Your task to perform on an android device: Go to Google maps Image 0: 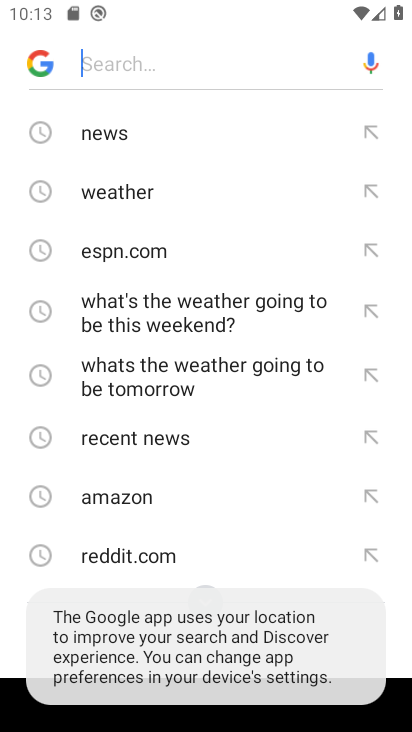
Step 0: press home button
Your task to perform on an android device: Go to Google maps Image 1: 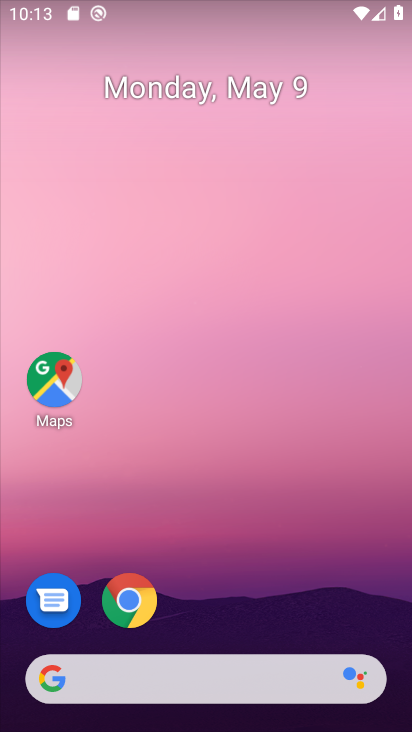
Step 1: drag from (365, 566) to (313, 120)
Your task to perform on an android device: Go to Google maps Image 2: 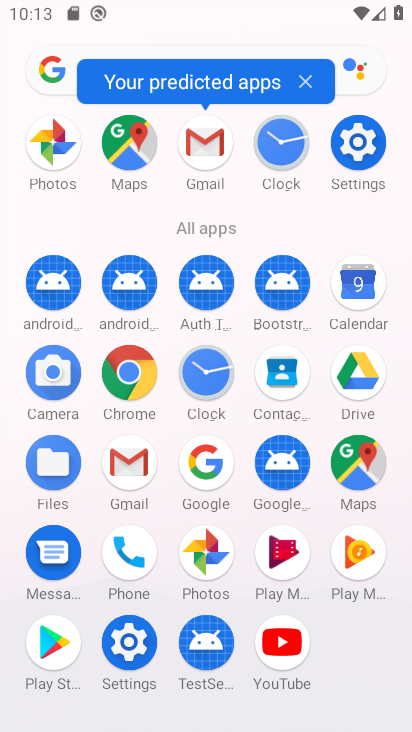
Step 2: click (348, 466)
Your task to perform on an android device: Go to Google maps Image 3: 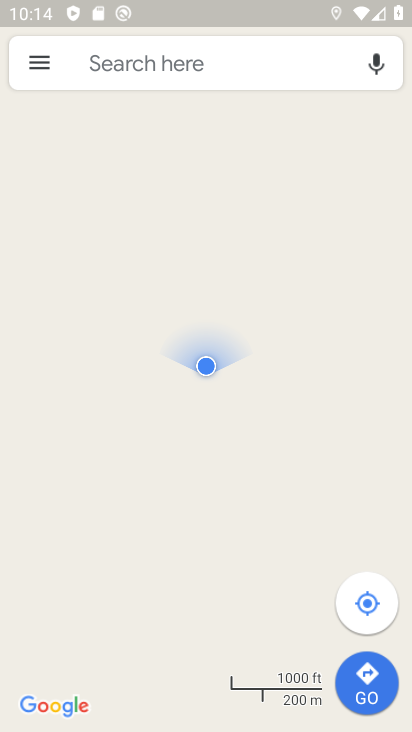
Step 3: click (144, 59)
Your task to perform on an android device: Go to Google maps Image 4: 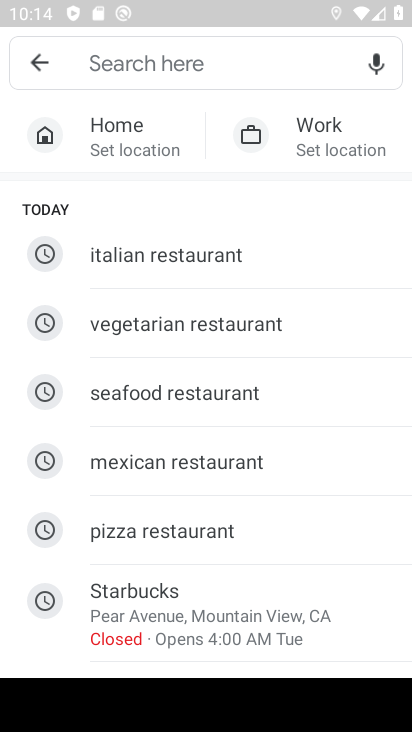
Step 4: task complete